Your task to perform on an android device: Open Google Maps Image 0: 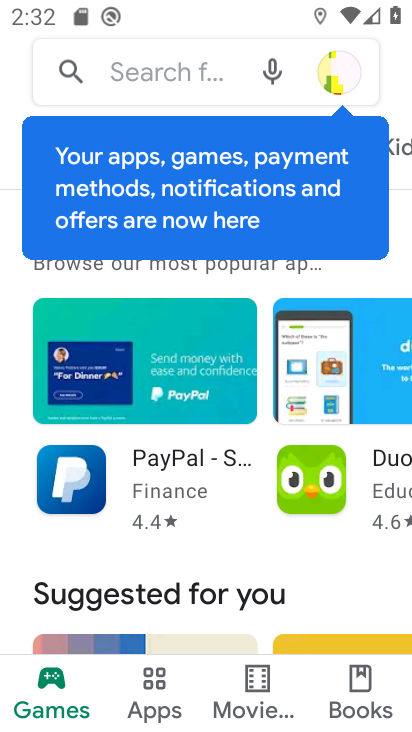
Step 0: press home button
Your task to perform on an android device: Open Google Maps Image 1: 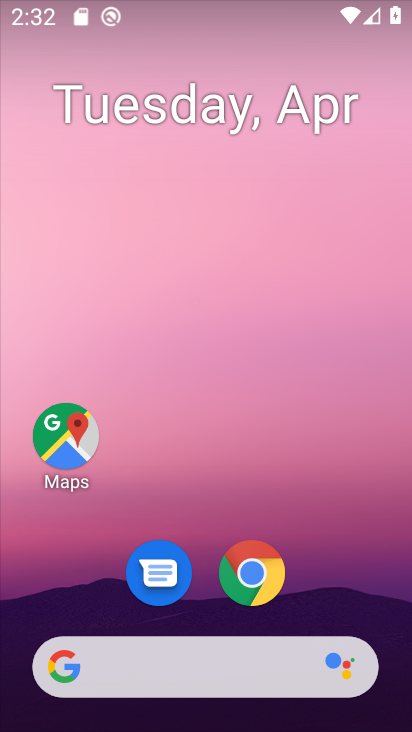
Step 1: click (71, 419)
Your task to perform on an android device: Open Google Maps Image 2: 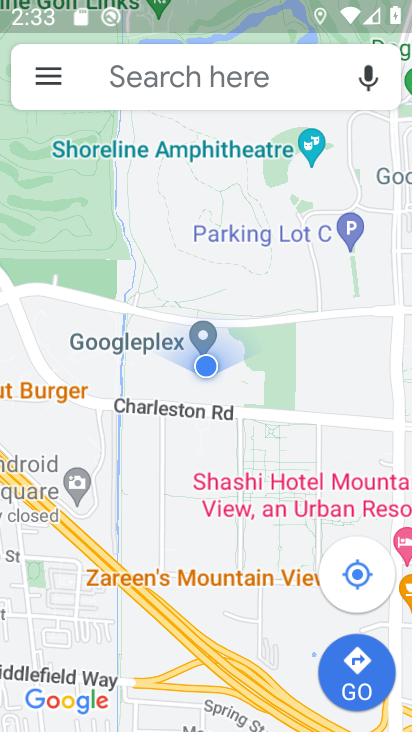
Step 2: task complete